Your task to perform on an android device: Go to settings Image 0: 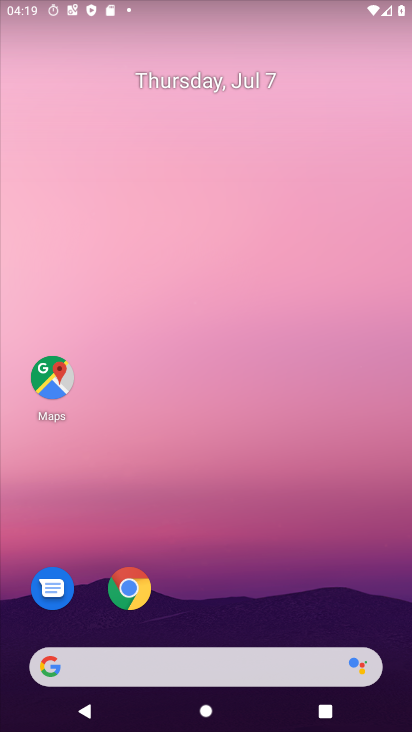
Step 0: press home button
Your task to perform on an android device: Go to settings Image 1: 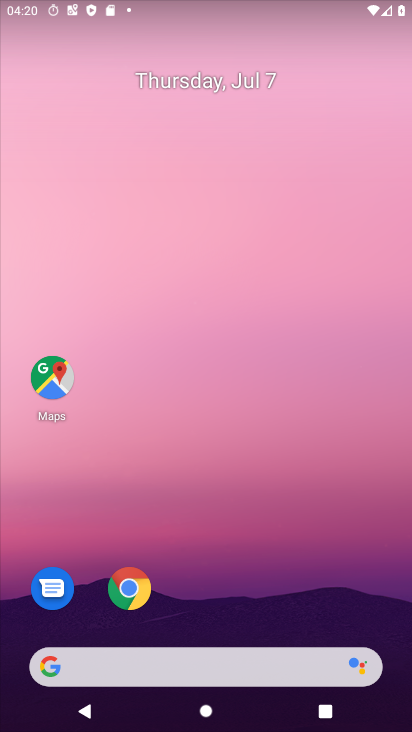
Step 1: drag from (277, 612) to (258, 3)
Your task to perform on an android device: Go to settings Image 2: 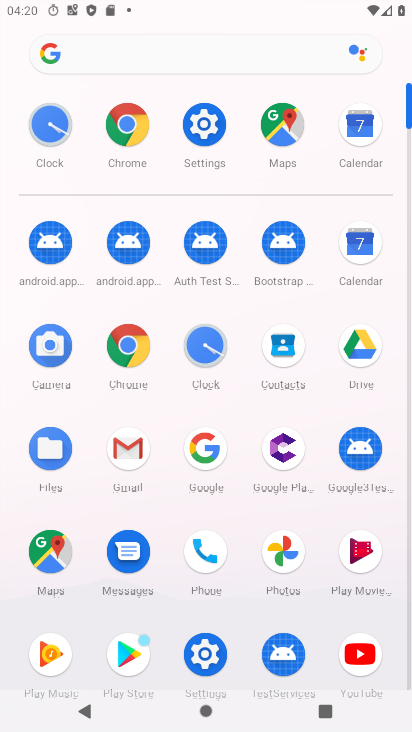
Step 2: click (209, 129)
Your task to perform on an android device: Go to settings Image 3: 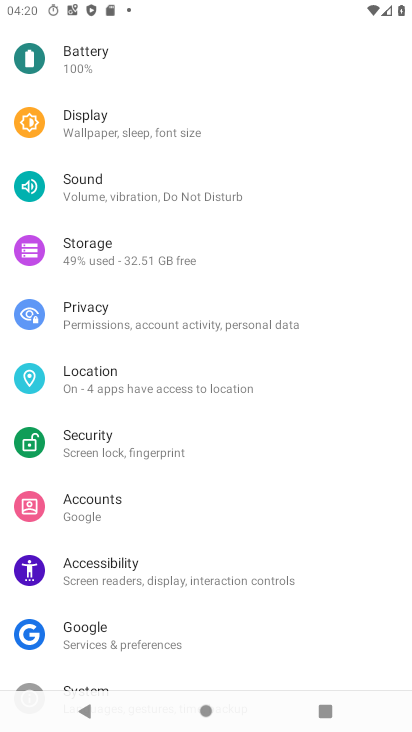
Step 3: task complete